Your task to perform on an android device: turn on showing notifications on the lock screen Image 0: 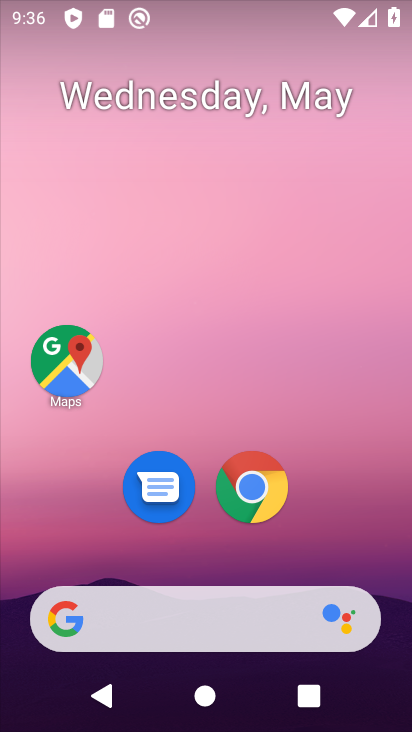
Step 0: press home button
Your task to perform on an android device: turn on showing notifications on the lock screen Image 1: 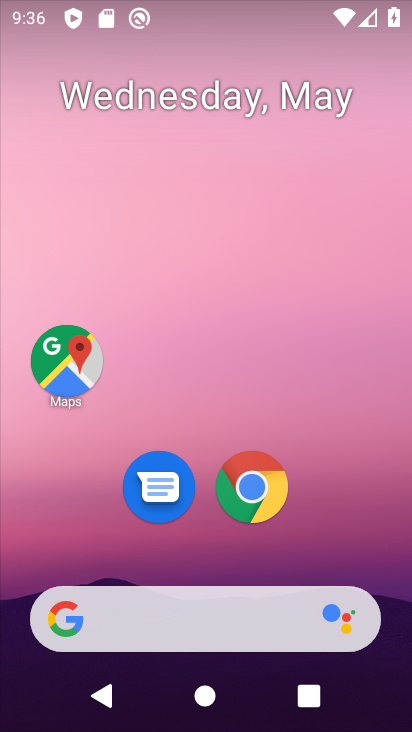
Step 1: drag from (264, 662) to (292, 0)
Your task to perform on an android device: turn on showing notifications on the lock screen Image 2: 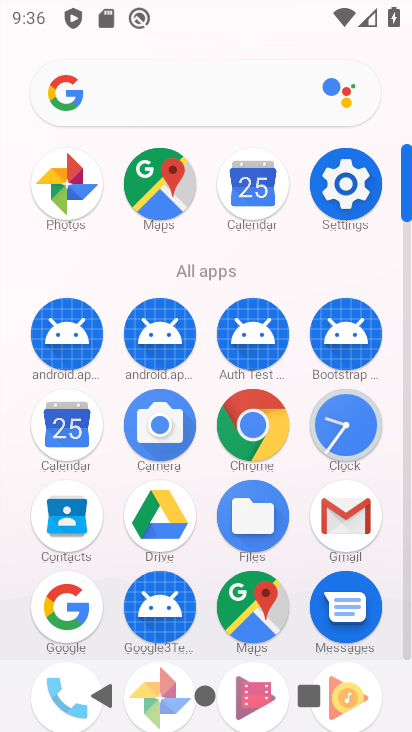
Step 2: click (349, 191)
Your task to perform on an android device: turn on showing notifications on the lock screen Image 3: 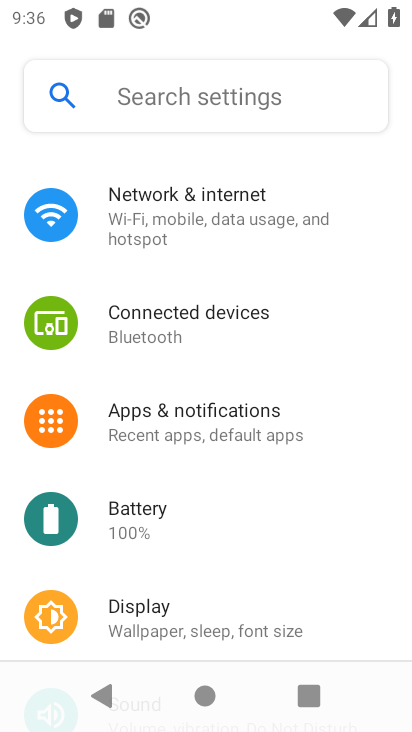
Step 3: click (182, 103)
Your task to perform on an android device: turn on showing notifications on the lock screen Image 4: 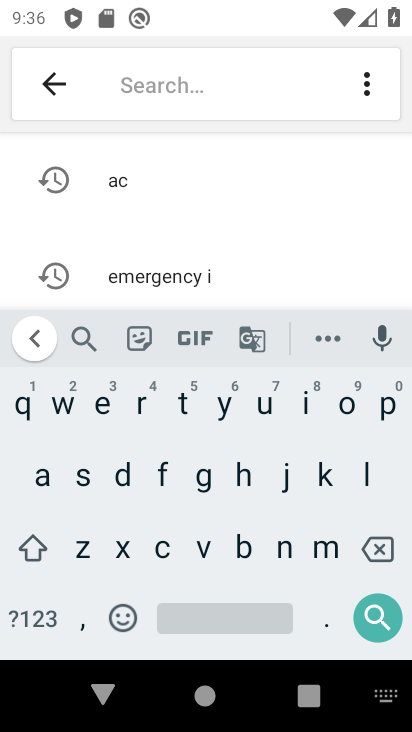
Step 4: click (276, 549)
Your task to perform on an android device: turn on showing notifications on the lock screen Image 5: 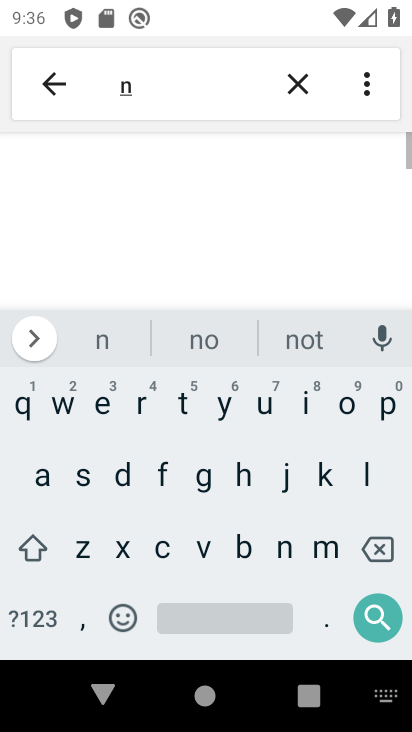
Step 5: click (343, 409)
Your task to perform on an android device: turn on showing notifications on the lock screen Image 6: 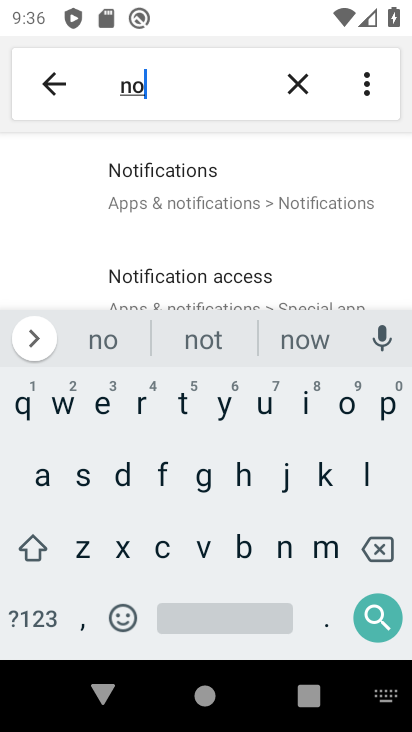
Step 6: click (178, 169)
Your task to perform on an android device: turn on showing notifications on the lock screen Image 7: 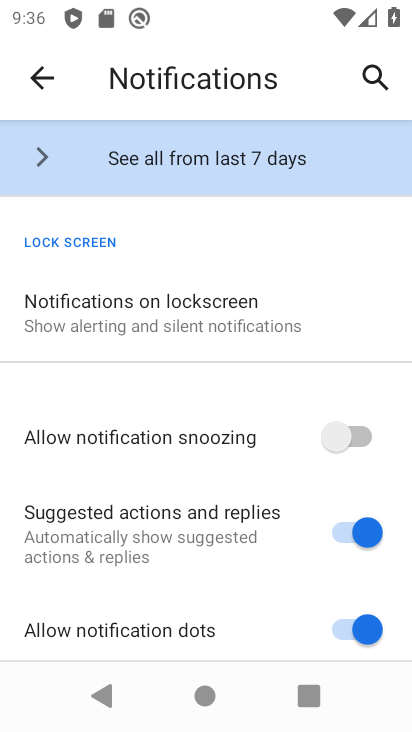
Step 7: click (73, 319)
Your task to perform on an android device: turn on showing notifications on the lock screen Image 8: 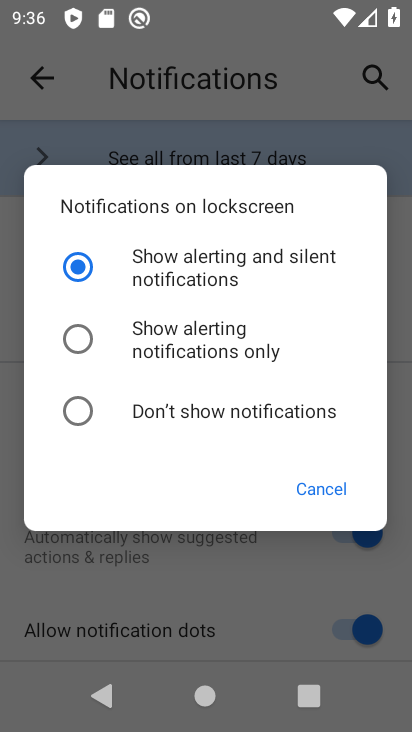
Step 8: task complete